Your task to perform on an android device: Open internet settings Image 0: 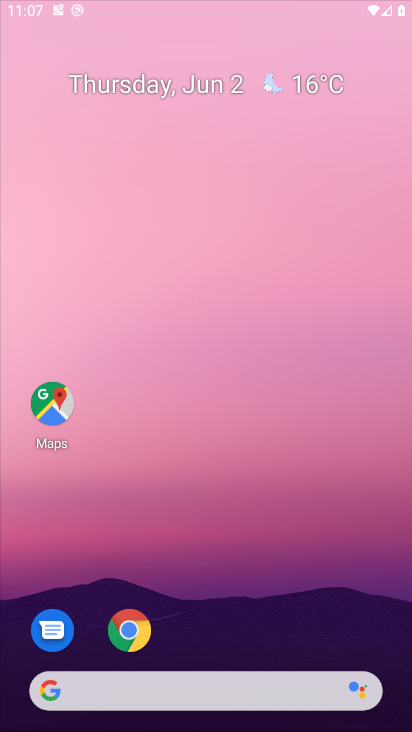
Step 0: click (299, 280)
Your task to perform on an android device: Open internet settings Image 1: 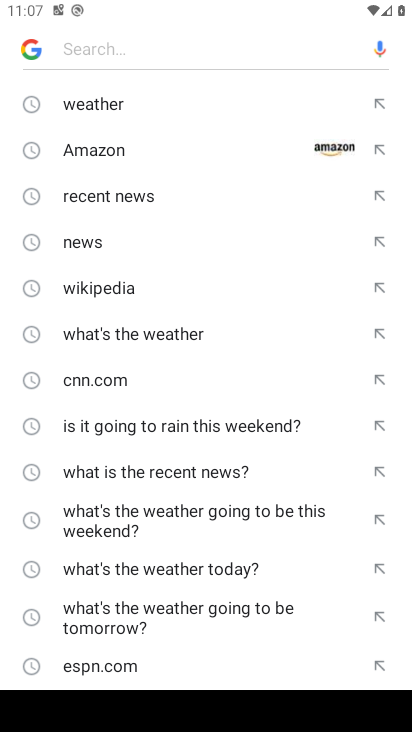
Step 1: press home button
Your task to perform on an android device: Open internet settings Image 2: 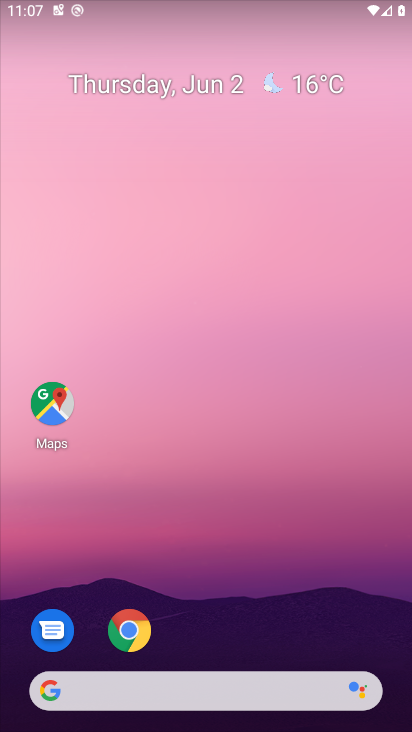
Step 2: drag from (239, 629) to (281, 4)
Your task to perform on an android device: Open internet settings Image 3: 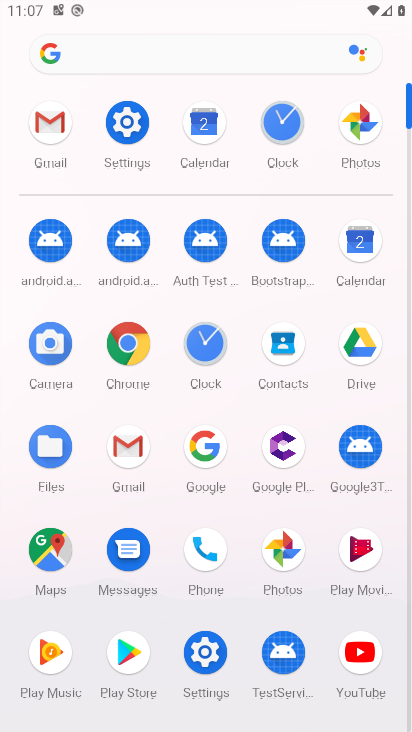
Step 3: click (112, 145)
Your task to perform on an android device: Open internet settings Image 4: 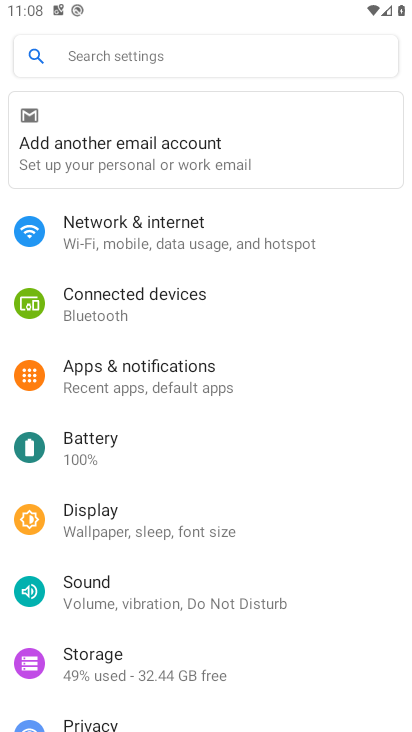
Step 4: click (177, 237)
Your task to perform on an android device: Open internet settings Image 5: 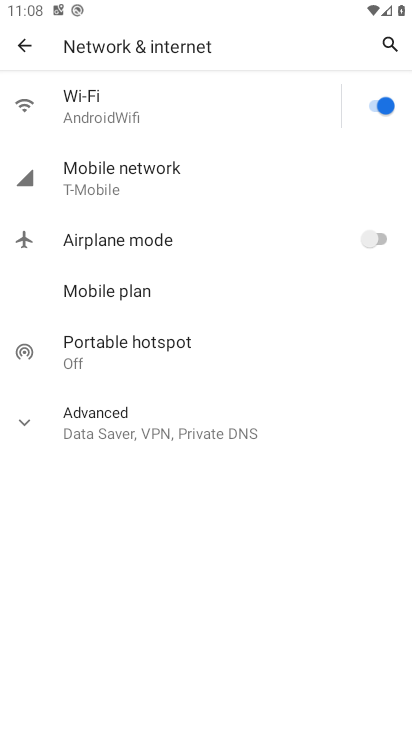
Step 5: task complete